Your task to perform on an android device: change notifications settings Image 0: 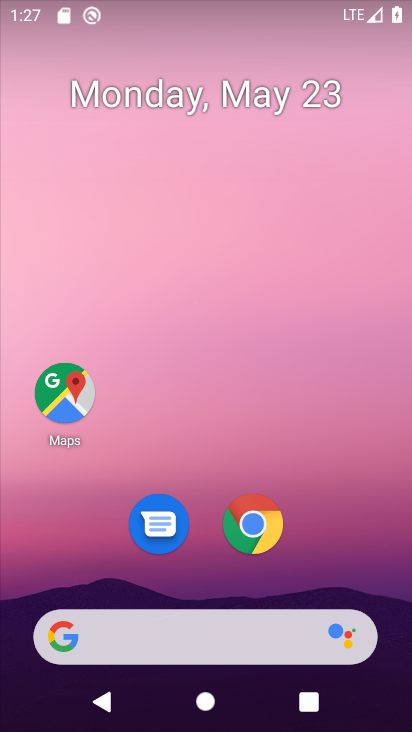
Step 0: drag from (246, 409) to (228, 5)
Your task to perform on an android device: change notifications settings Image 1: 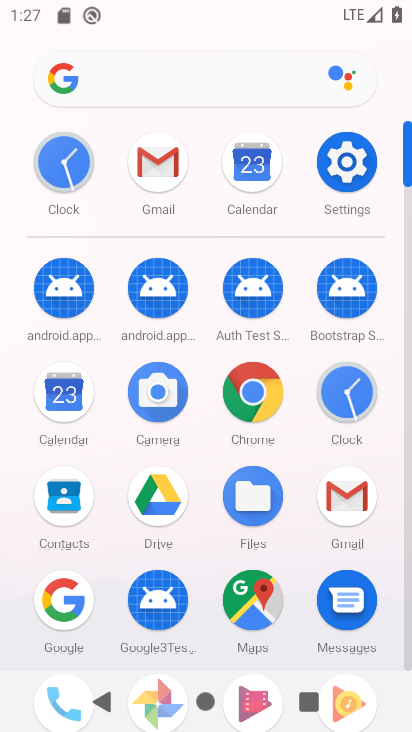
Step 1: click (357, 166)
Your task to perform on an android device: change notifications settings Image 2: 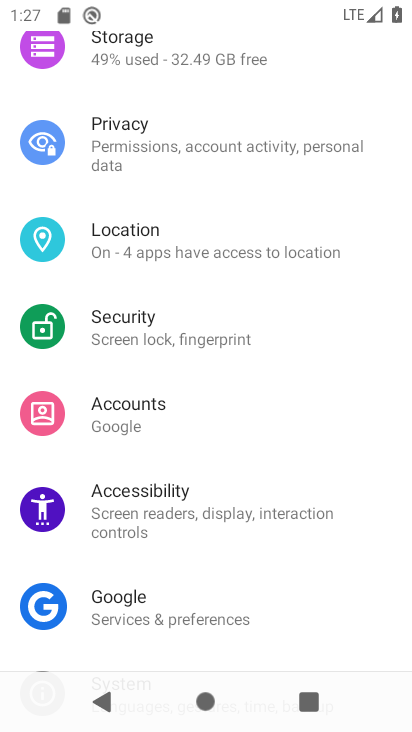
Step 2: drag from (248, 214) to (199, 611)
Your task to perform on an android device: change notifications settings Image 3: 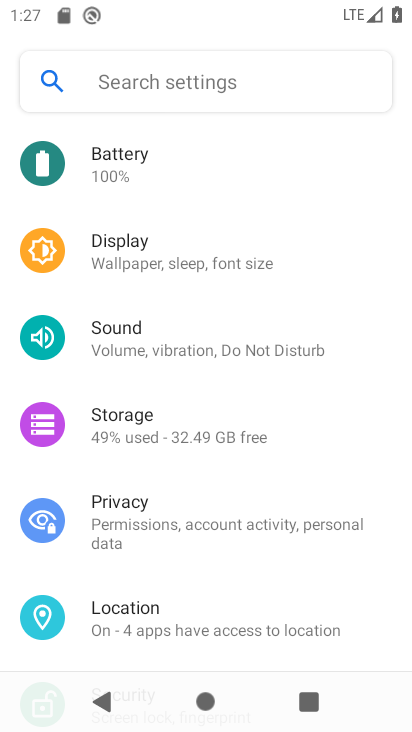
Step 3: drag from (209, 224) to (216, 556)
Your task to perform on an android device: change notifications settings Image 4: 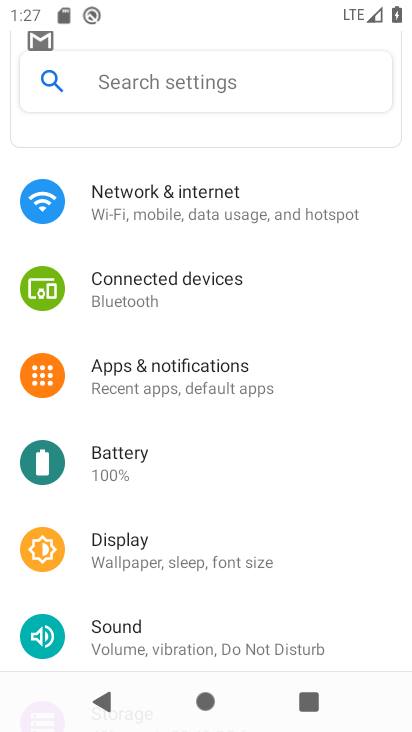
Step 4: click (246, 384)
Your task to perform on an android device: change notifications settings Image 5: 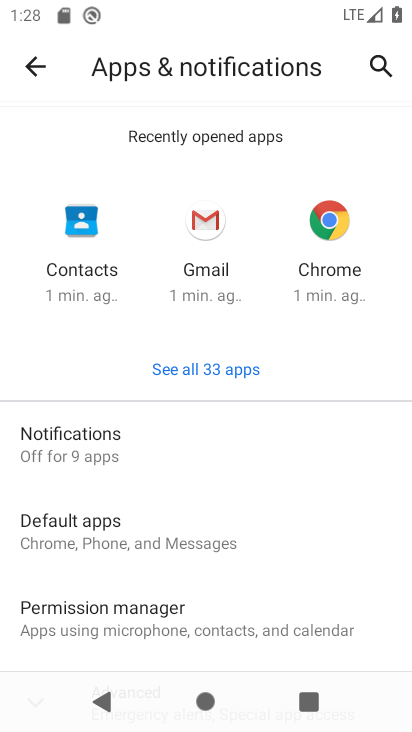
Step 5: click (165, 437)
Your task to perform on an android device: change notifications settings Image 6: 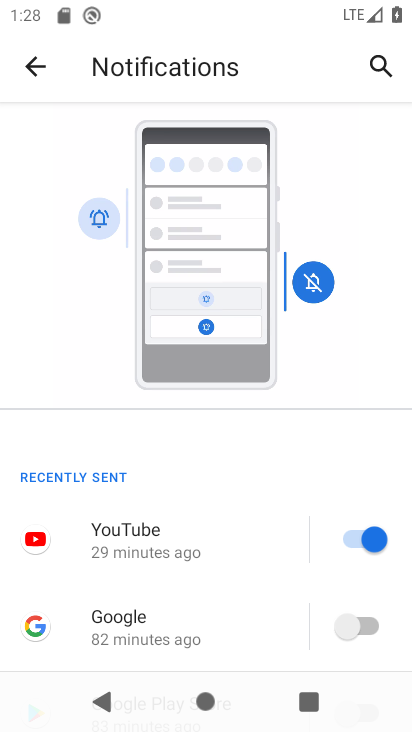
Step 6: drag from (226, 585) to (256, 222)
Your task to perform on an android device: change notifications settings Image 7: 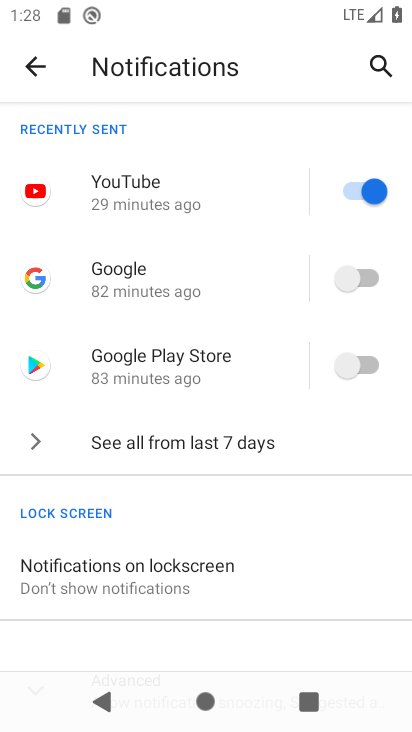
Step 7: click (192, 442)
Your task to perform on an android device: change notifications settings Image 8: 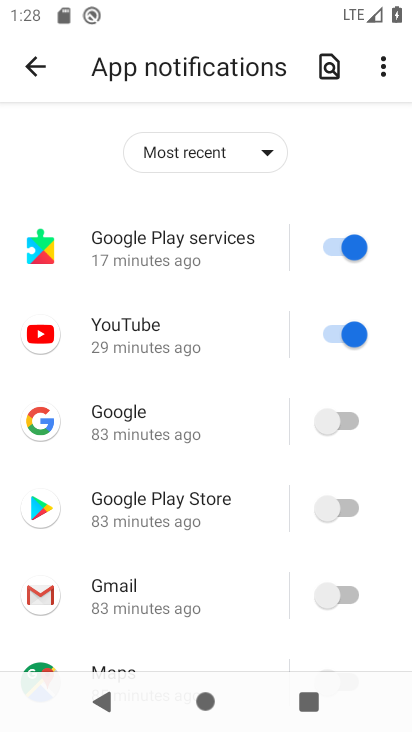
Step 8: click (333, 234)
Your task to perform on an android device: change notifications settings Image 9: 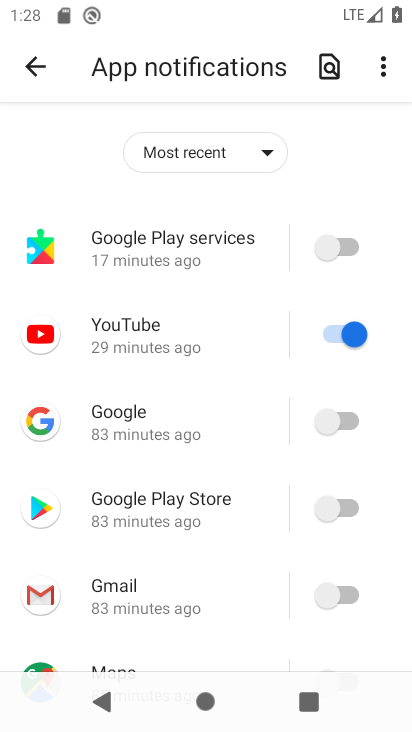
Step 9: click (338, 333)
Your task to perform on an android device: change notifications settings Image 10: 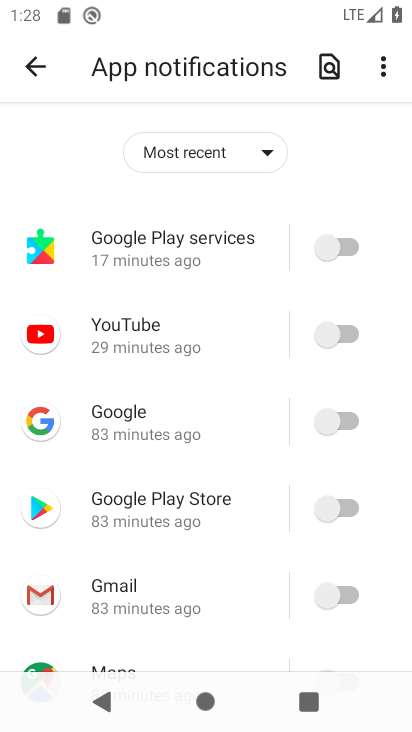
Step 10: click (341, 424)
Your task to perform on an android device: change notifications settings Image 11: 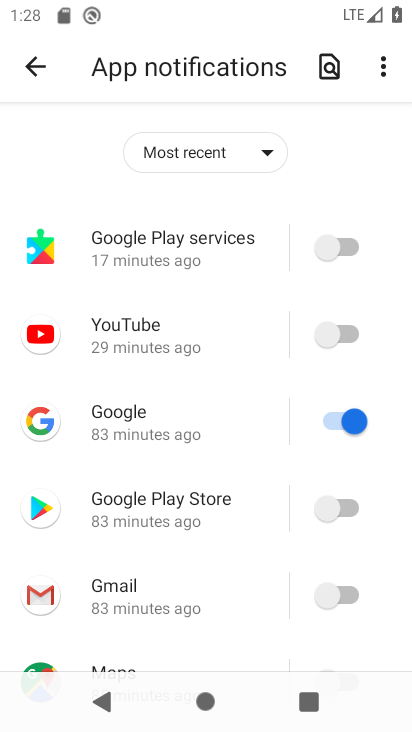
Step 11: click (336, 496)
Your task to perform on an android device: change notifications settings Image 12: 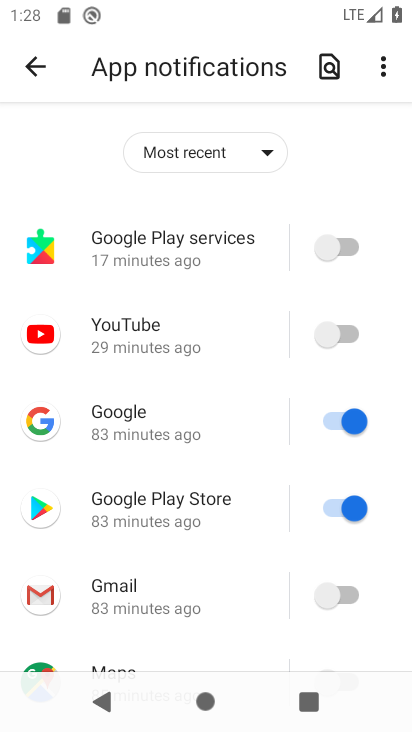
Step 12: click (333, 581)
Your task to perform on an android device: change notifications settings Image 13: 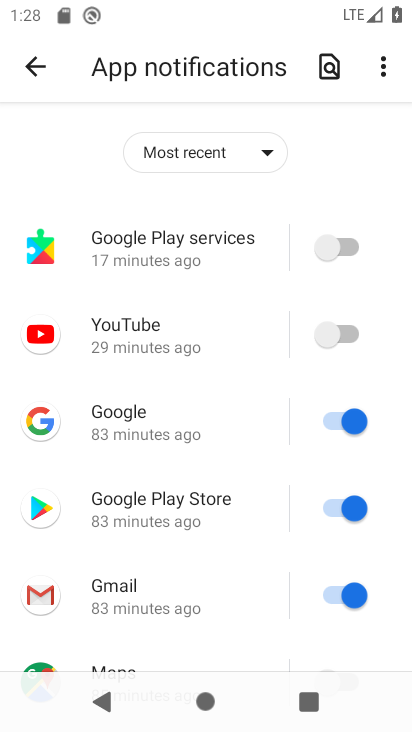
Step 13: drag from (246, 633) to (267, 194)
Your task to perform on an android device: change notifications settings Image 14: 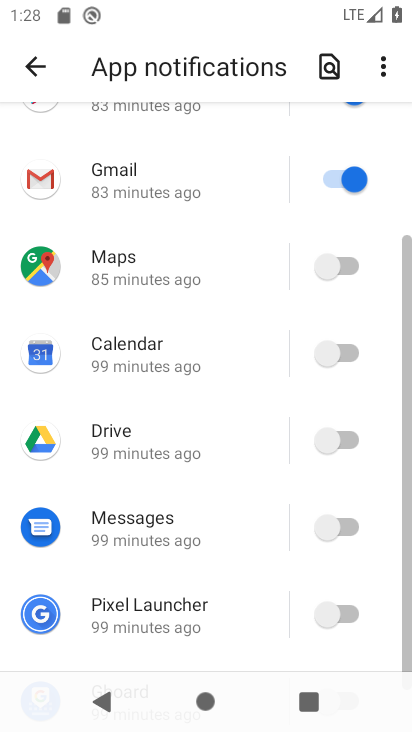
Step 14: click (325, 251)
Your task to perform on an android device: change notifications settings Image 15: 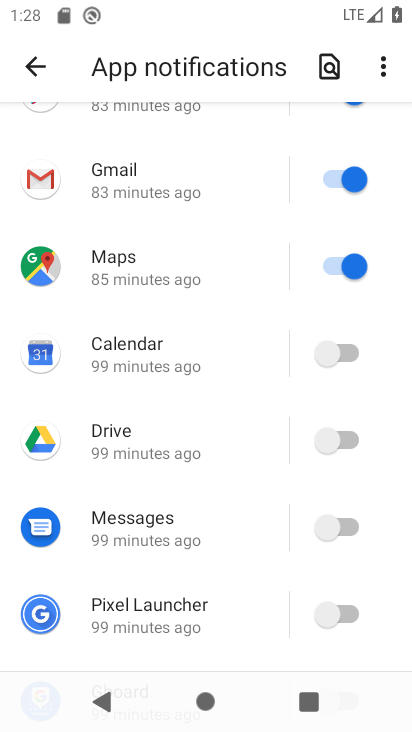
Step 15: click (332, 352)
Your task to perform on an android device: change notifications settings Image 16: 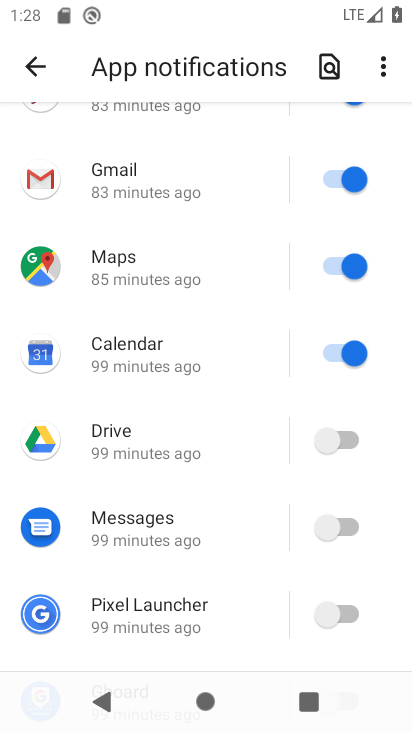
Step 16: click (328, 438)
Your task to perform on an android device: change notifications settings Image 17: 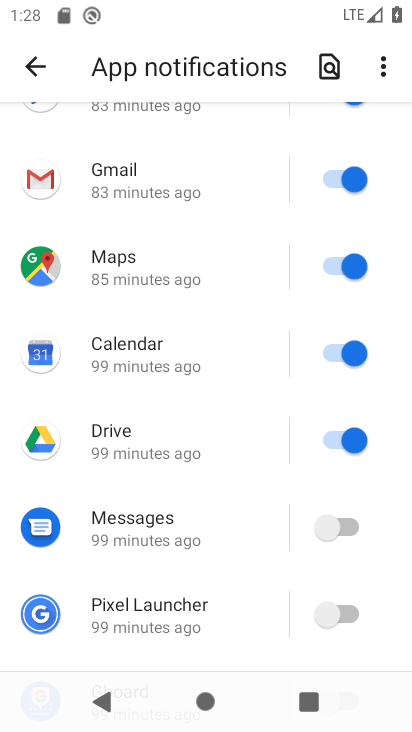
Step 17: click (333, 530)
Your task to perform on an android device: change notifications settings Image 18: 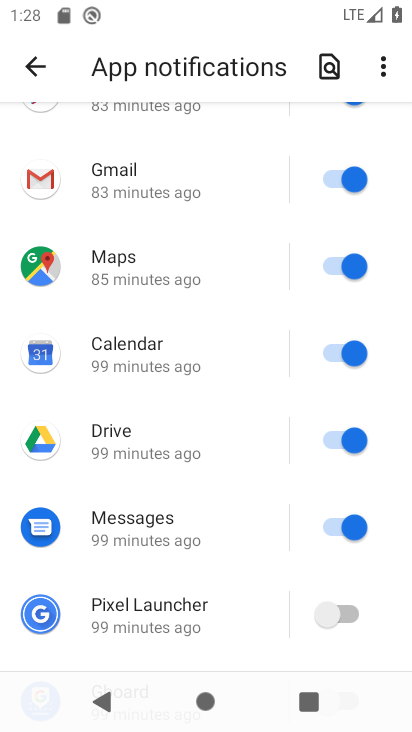
Step 18: click (333, 603)
Your task to perform on an android device: change notifications settings Image 19: 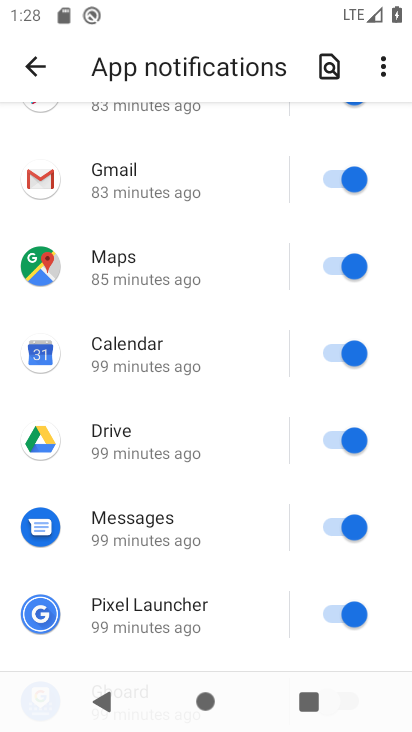
Step 19: task complete